Your task to perform on an android device: check storage Image 0: 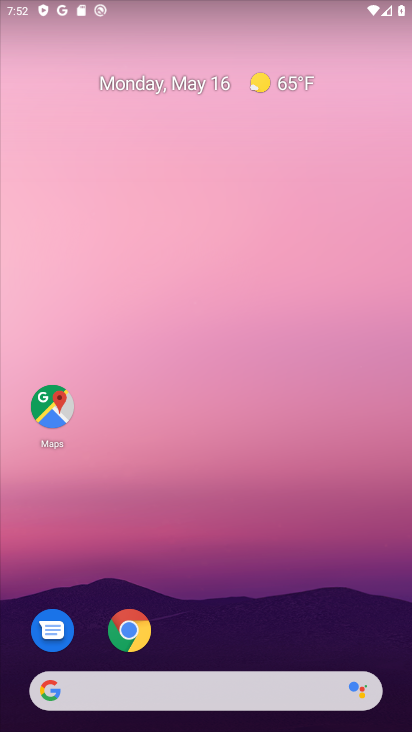
Step 0: drag from (240, 655) to (222, 196)
Your task to perform on an android device: check storage Image 1: 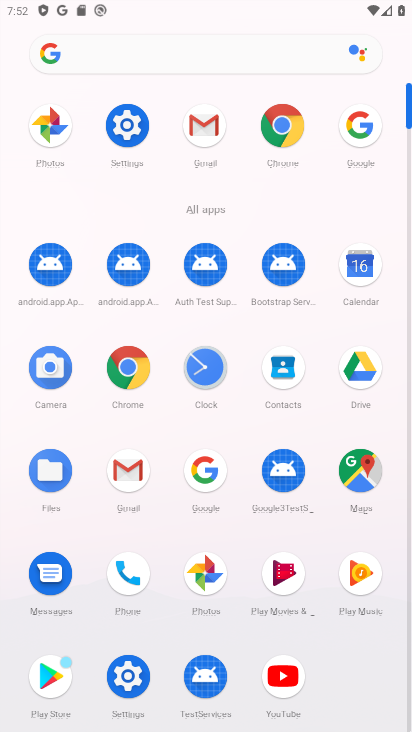
Step 1: click (142, 119)
Your task to perform on an android device: check storage Image 2: 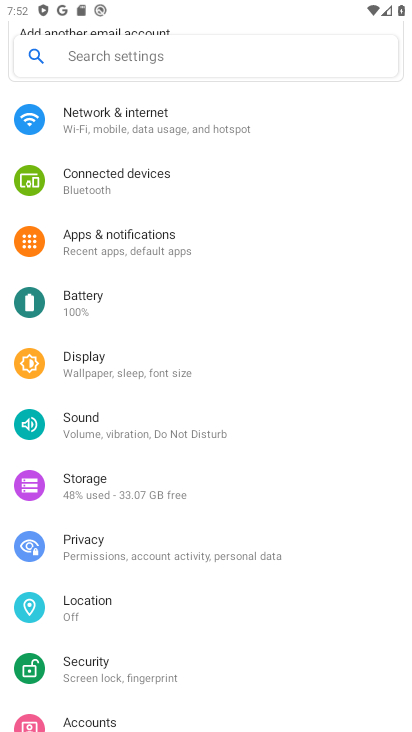
Step 2: click (87, 488)
Your task to perform on an android device: check storage Image 3: 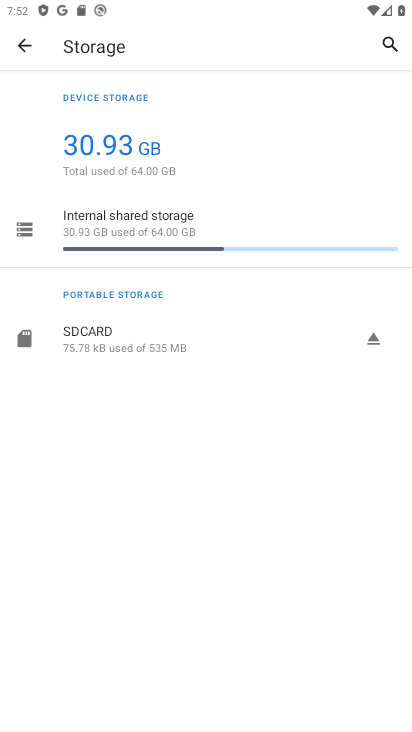
Step 3: task complete